Your task to perform on an android device: check battery use Image 0: 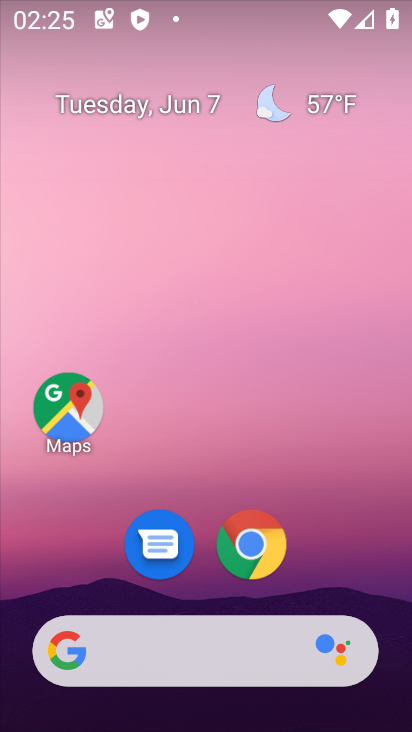
Step 0: drag from (290, 570) to (282, 237)
Your task to perform on an android device: check battery use Image 1: 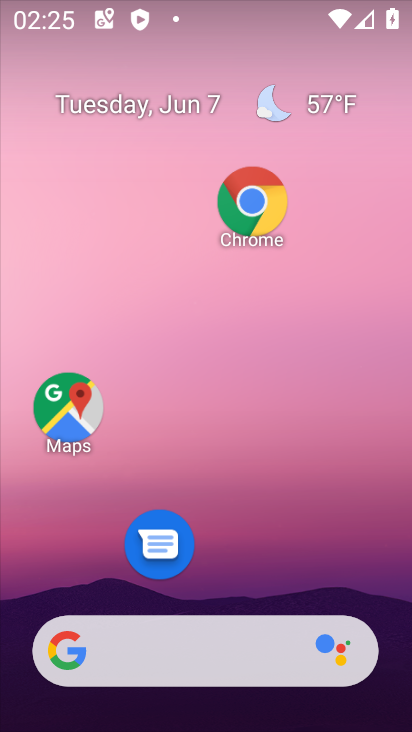
Step 1: drag from (276, 593) to (313, 244)
Your task to perform on an android device: check battery use Image 2: 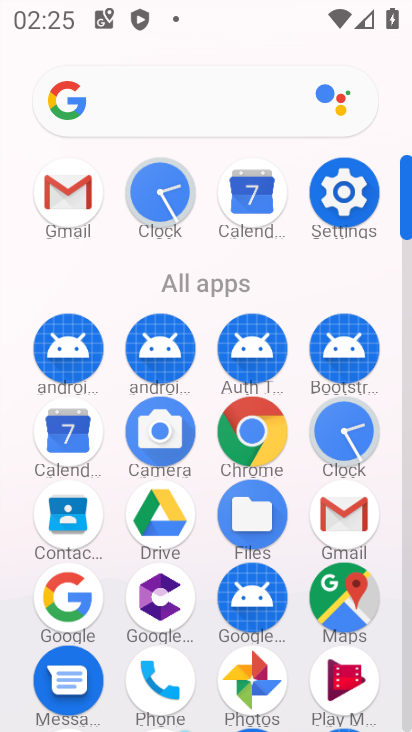
Step 2: click (329, 185)
Your task to perform on an android device: check battery use Image 3: 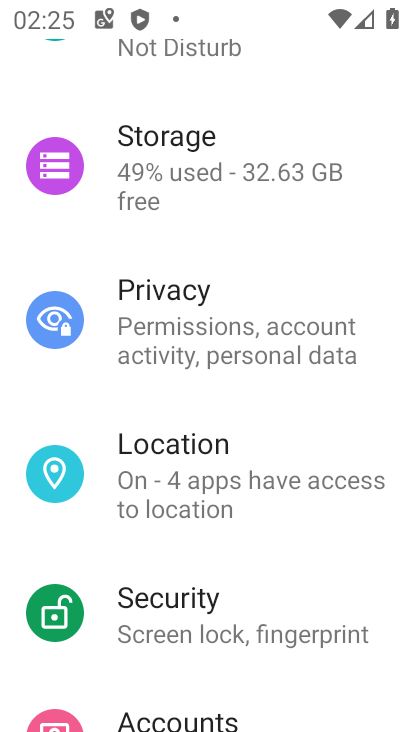
Step 3: drag from (169, 194) to (173, 514)
Your task to perform on an android device: check battery use Image 4: 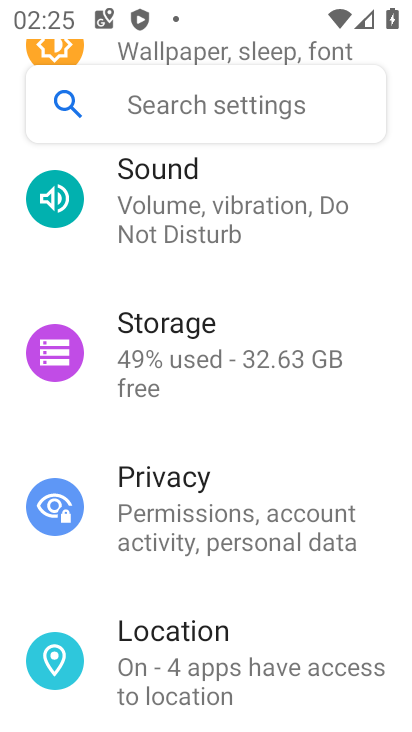
Step 4: drag from (131, 324) to (141, 604)
Your task to perform on an android device: check battery use Image 5: 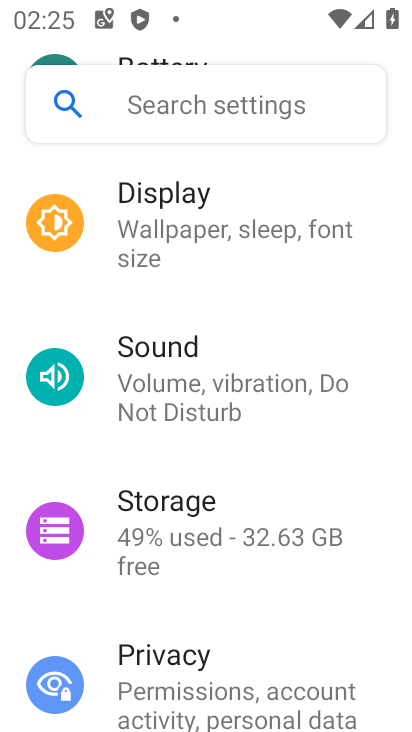
Step 5: drag from (173, 209) to (150, 515)
Your task to perform on an android device: check battery use Image 6: 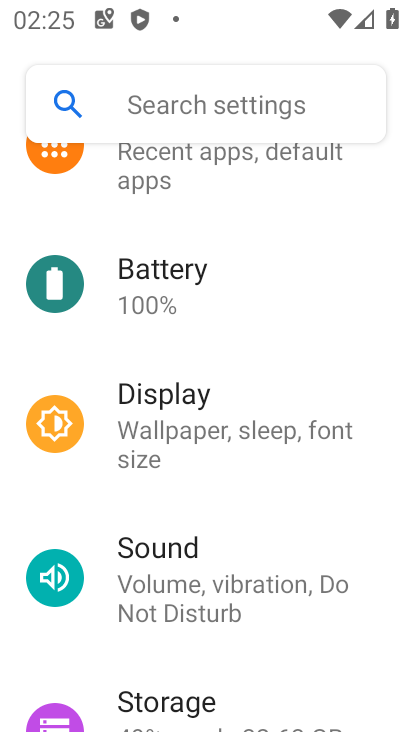
Step 6: click (197, 275)
Your task to perform on an android device: check battery use Image 7: 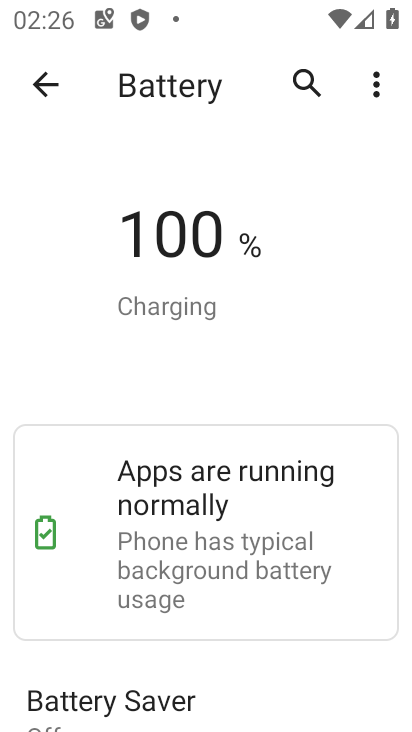
Step 7: task complete